Your task to perform on an android device: turn off picture-in-picture Image 0: 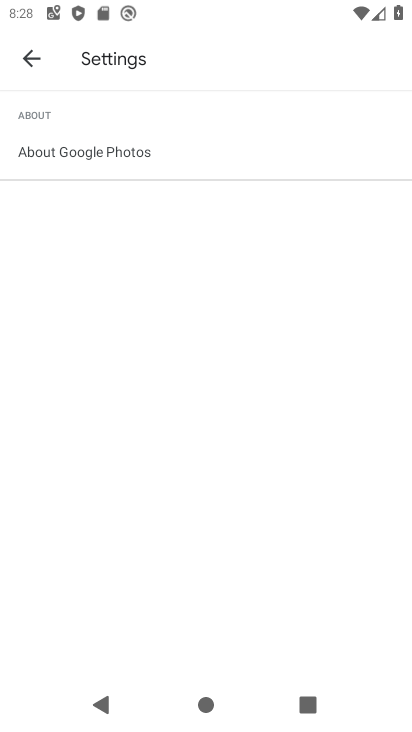
Step 0: press home button
Your task to perform on an android device: turn off picture-in-picture Image 1: 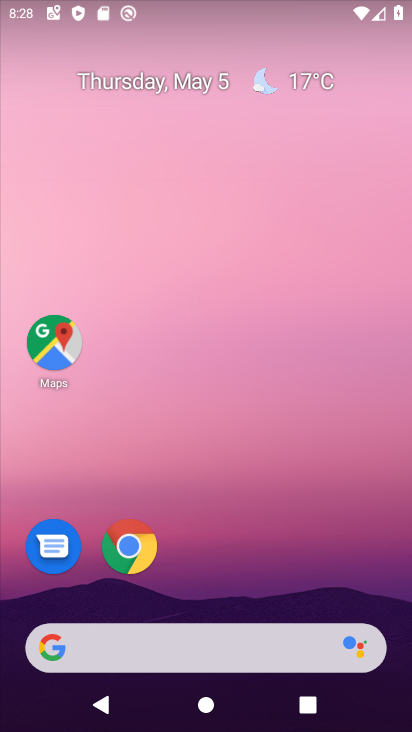
Step 1: click (132, 540)
Your task to perform on an android device: turn off picture-in-picture Image 2: 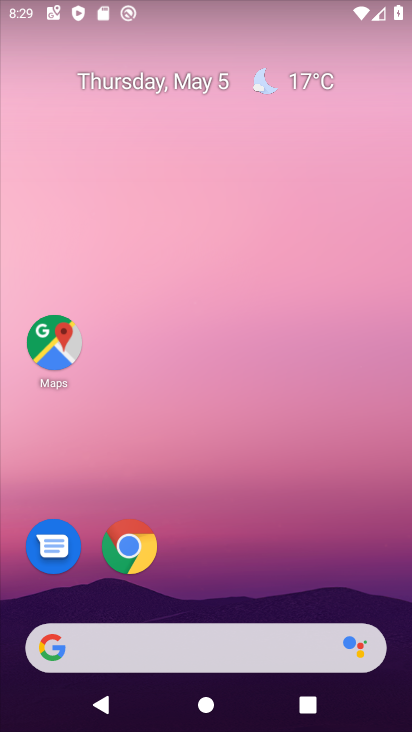
Step 2: click (264, 359)
Your task to perform on an android device: turn off picture-in-picture Image 3: 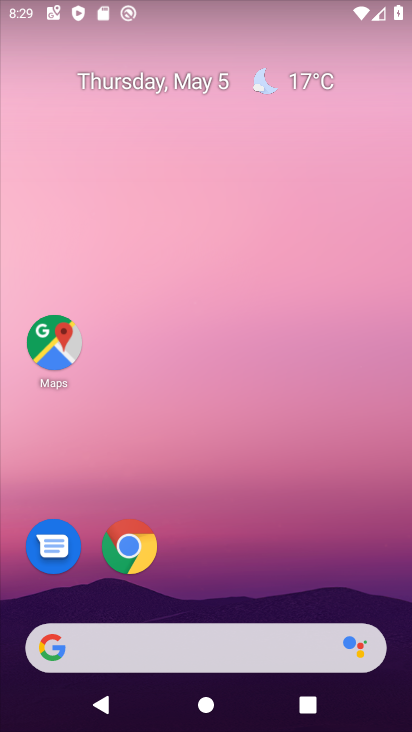
Step 3: click (125, 553)
Your task to perform on an android device: turn off picture-in-picture Image 4: 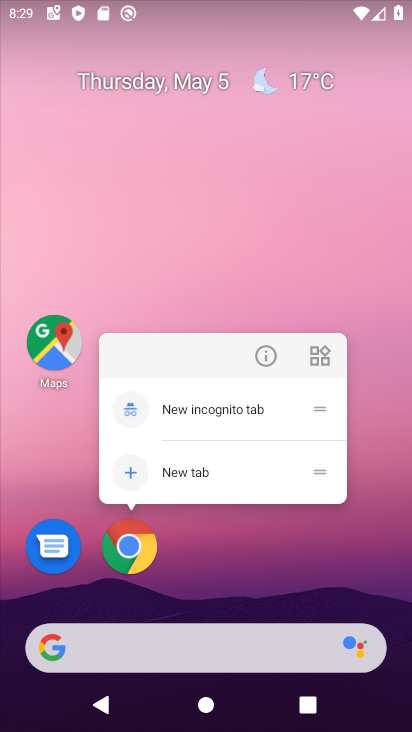
Step 4: click (277, 353)
Your task to perform on an android device: turn off picture-in-picture Image 5: 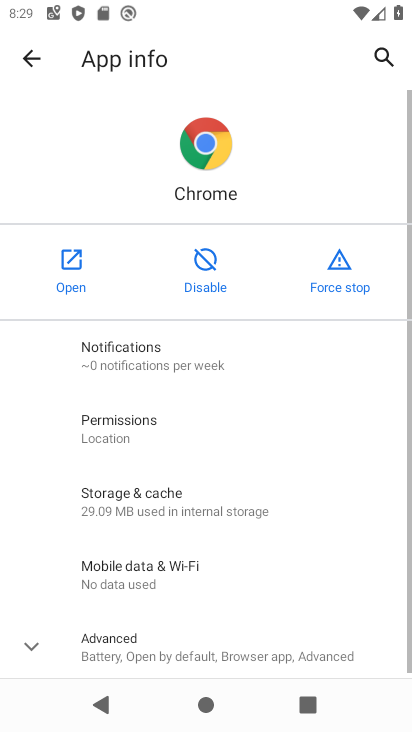
Step 5: drag from (150, 636) to (307, 320)
Your task to perform on an android device: turn off picture-in-picture Image 6: 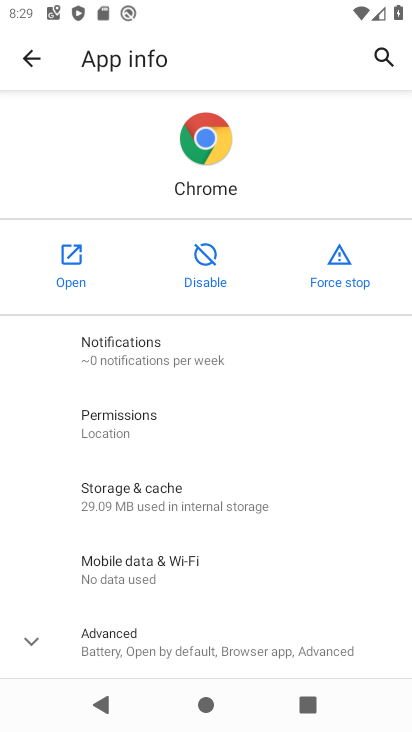
Step 6: click (75, 640)
Your task to perform on an android device: turn off picture-in-picture Image 7: 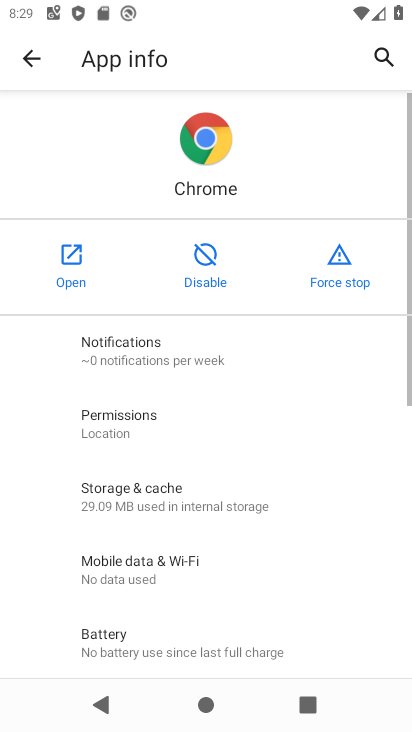
Step 7: drag from (205, 565) to (336, 175)
Your task to perform on an android device: turn off picture-in-picture Image 8: 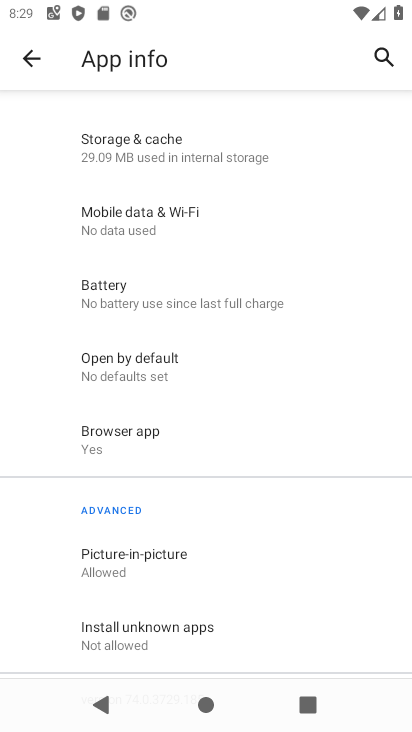
Step 8: click (138, 556)
Your task to perform on an android device: turn off picture-in-picture Image 9: 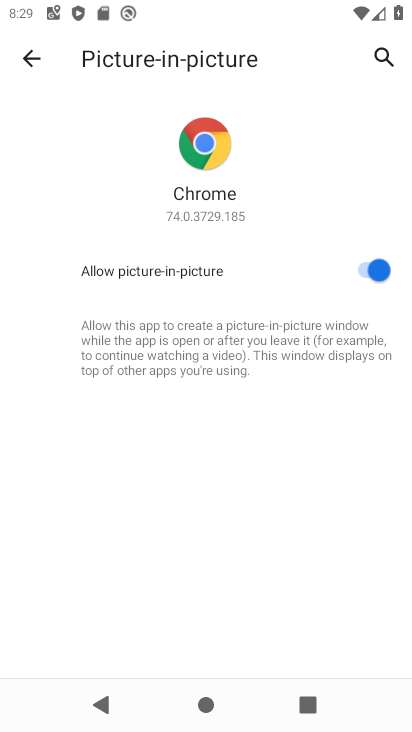
Step 9: click (368, 268)
Your task to perform on an android device: turn off picture-in-picture Image 10: 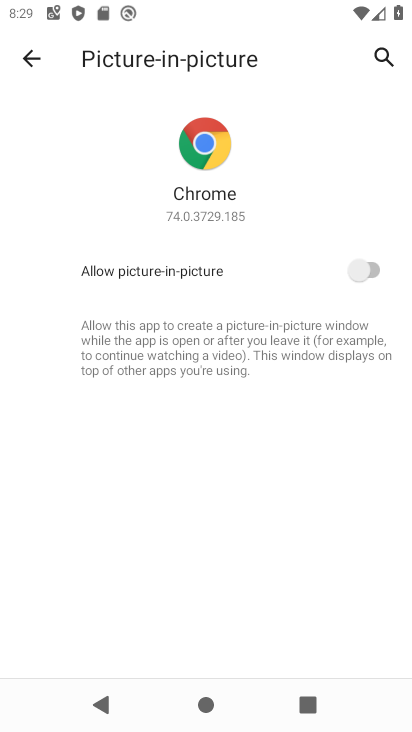
Step 10: task complete